Your task to perform on an android device: Go to Maps Image 0: 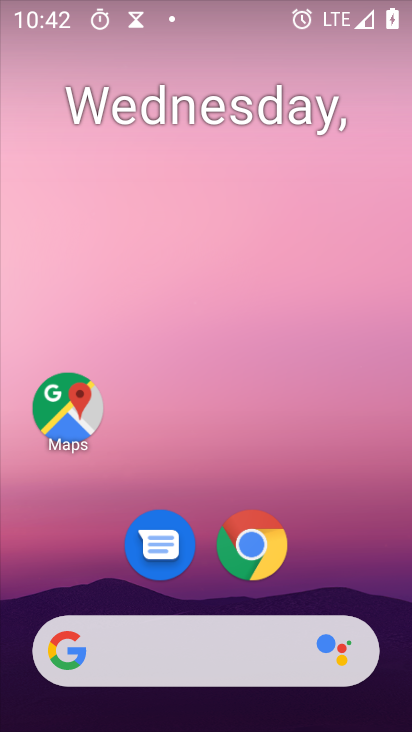
Step 0: press home button
Your task to perform on an android device: Go to Maps Image 1: 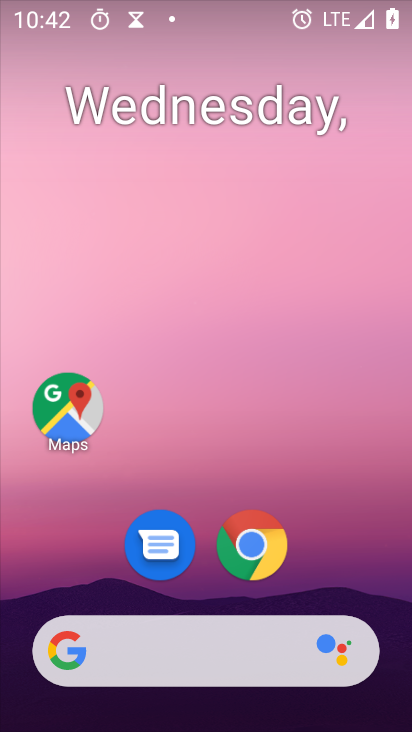
Step 1: click (51, 407)
Your task to perform on an android device: Go to Maps Image 2: 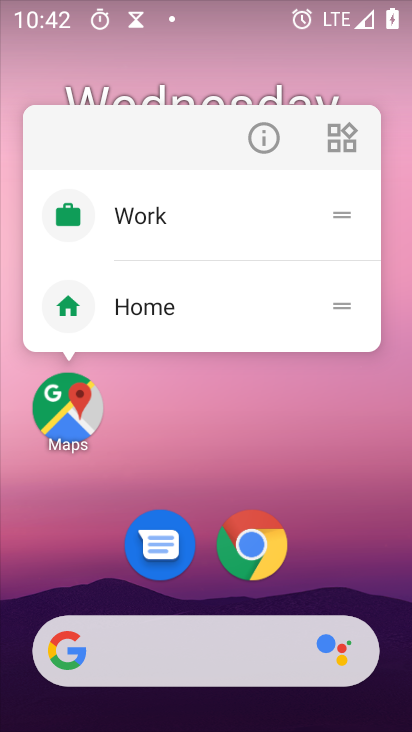
Step 2: click (67, 413)
Your task to perform on an android device: Go to Maps Image 3: 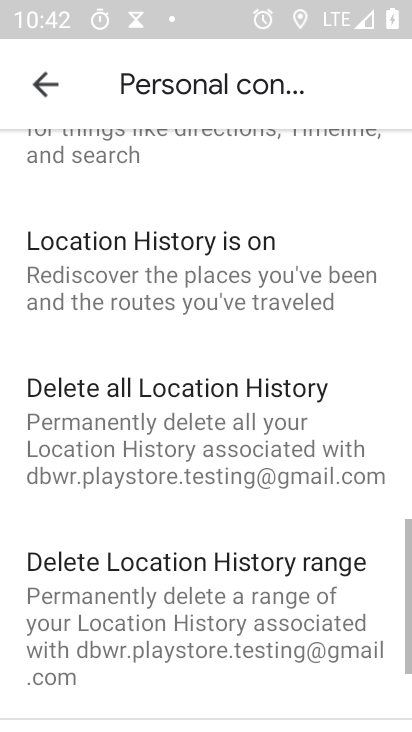
Step 3: click (50, 93)
Your task to perform on an android device: Go to Maps Image 4: 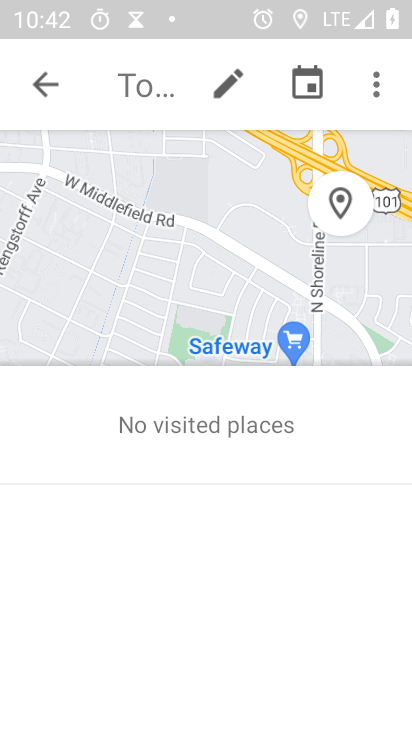
Step 4: click (50, 94)
Your task to perform on an android device: Go to Maps Image 5: 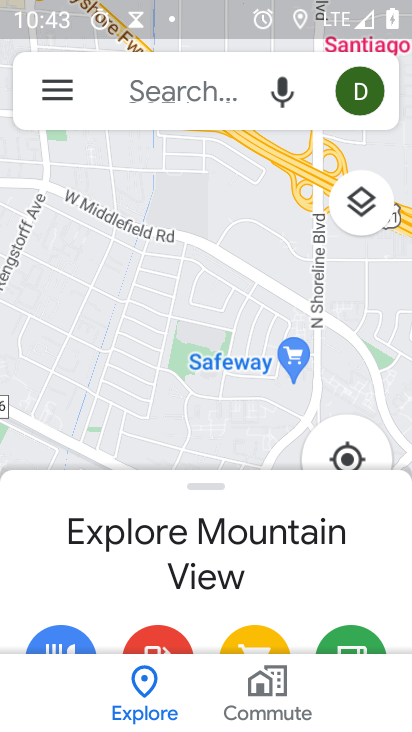
Step 5: task complete